Your task to perform on an android device: Check the news Image 0: 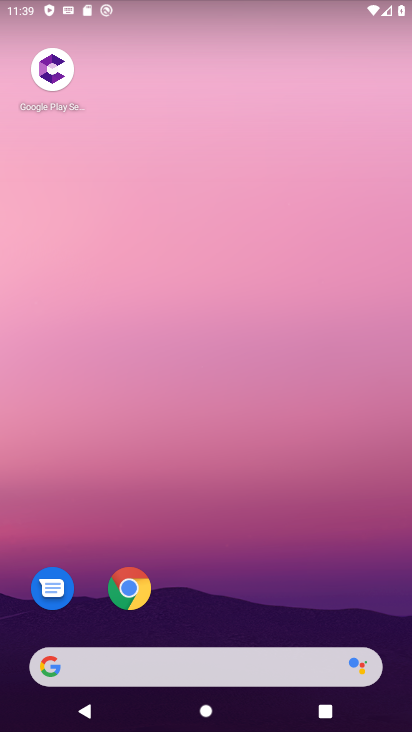
Step 0: click (250, 664)
Your task to perform on an android device: Check the news Image 1: 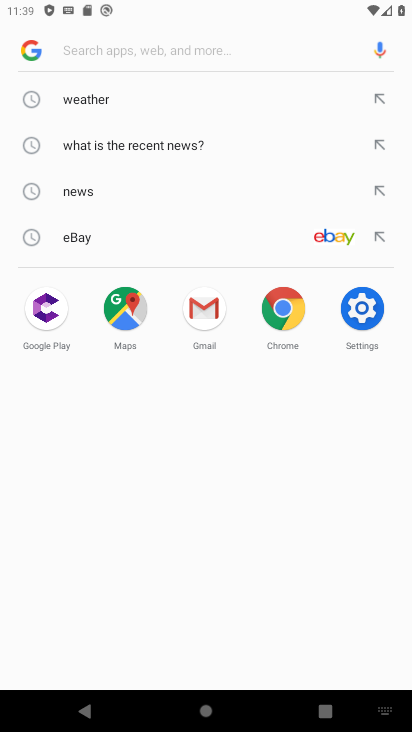
Step 1: click (123, 185)
Your task to perform on an android device: Check the news Image 2: 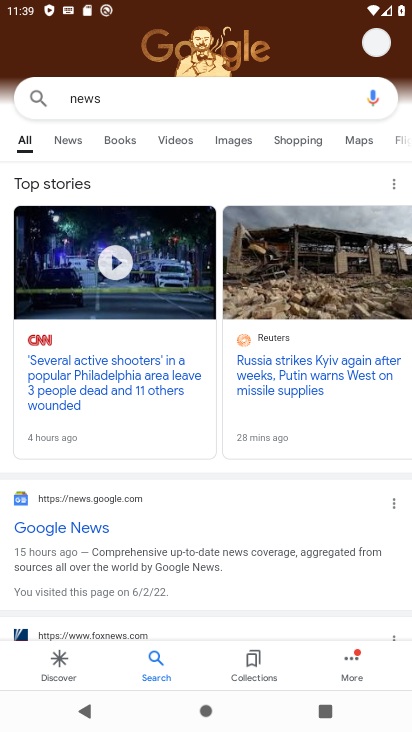
Step 2: task complete